Your task to perform on an android device: Open the calendar app, open the side menu, and click the "Day" option Image 0: 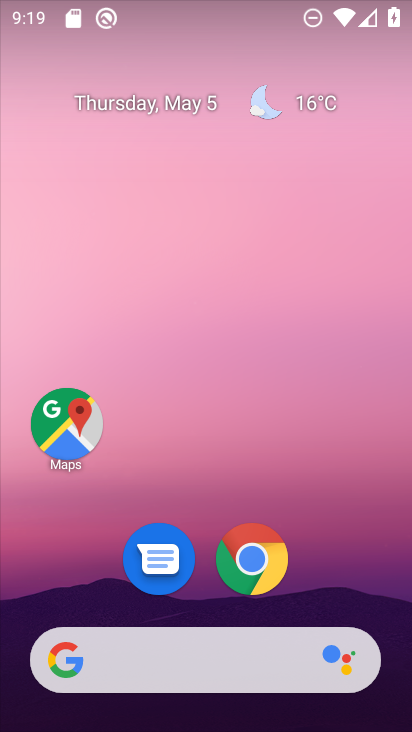
Step 0: drag from (370, 586) to (329, 41)
Your task to perform on an android device: Open the calendar app, open the side menu, and click the "Day" option Image 1: 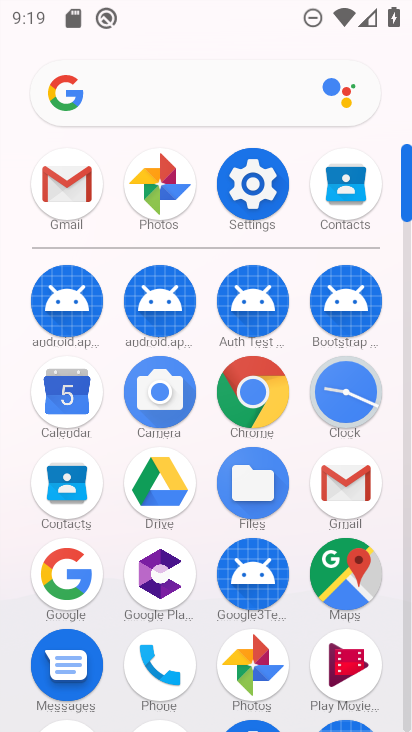
Step 1: click (66, 395)
Your task to perform on an android device: Open the calendar app, open the side menu, and click the "Day" option Image 2: 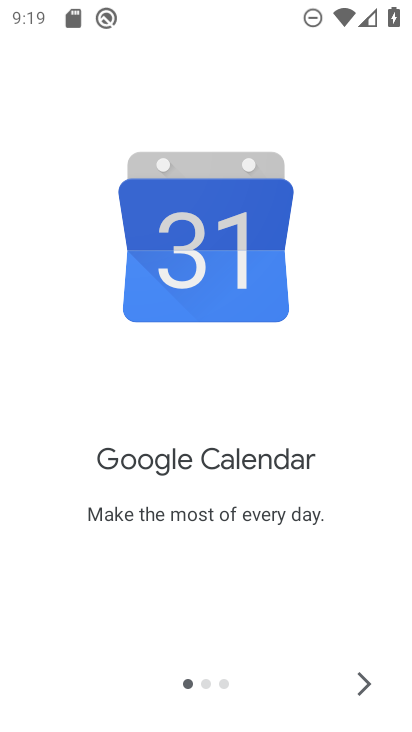
Step 2: click (364, 695)
Your task to perform on an android device: Open the calendar app, open the side menu, and click the "Day" option Image 3: 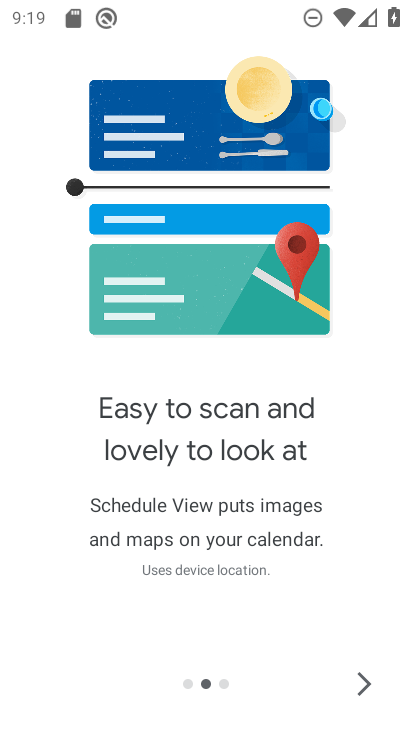
Step 3: click (364, 695)
Your task to perform on an android device: Open the calendar app, open the side menu, and click the "Day" option Image 4: 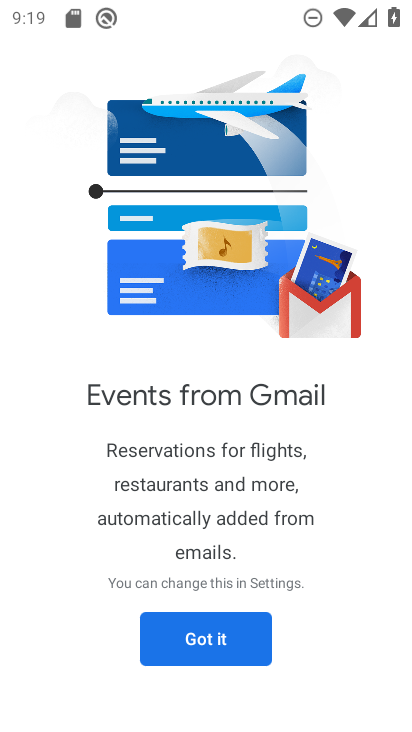
Step 4: click (196, 646)
Your task to perform on an android device: Open the calendar app, open the side menu, and click the "Day" option Image 5: 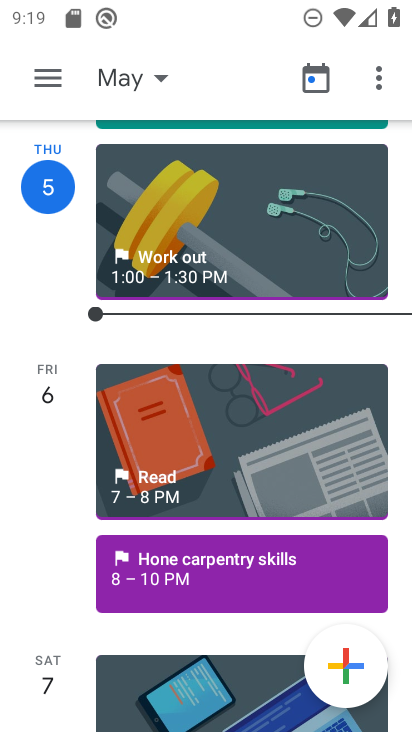
Step 5: click (52, 85)
Your task to perform on an android device: Open the calendar app, open the side menu, and click the "Day" option Image 6: 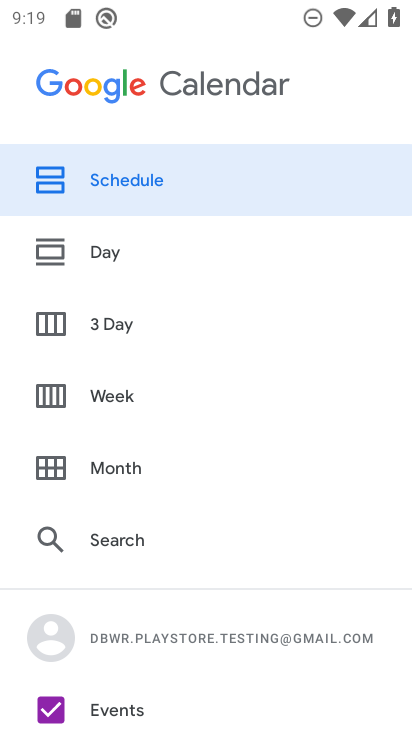
Step 6: click (83, 263)
Your task to perform on an android device: Open the calendar app, open the side menu, and click the "Day" option Image 7: 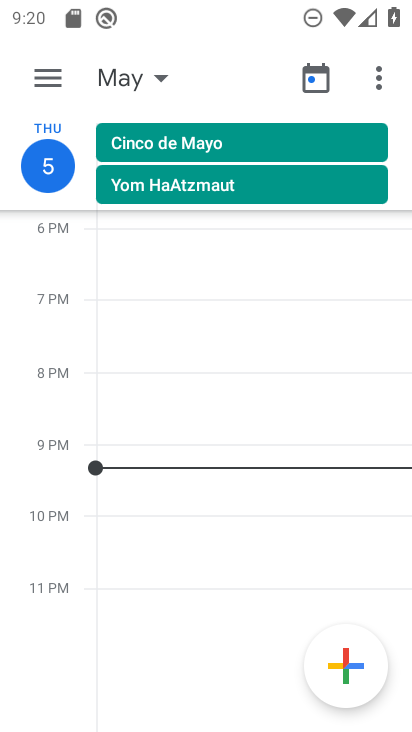
Step 7: task complete